Your task to perform on an android device: open device folders in google photos Image 0: 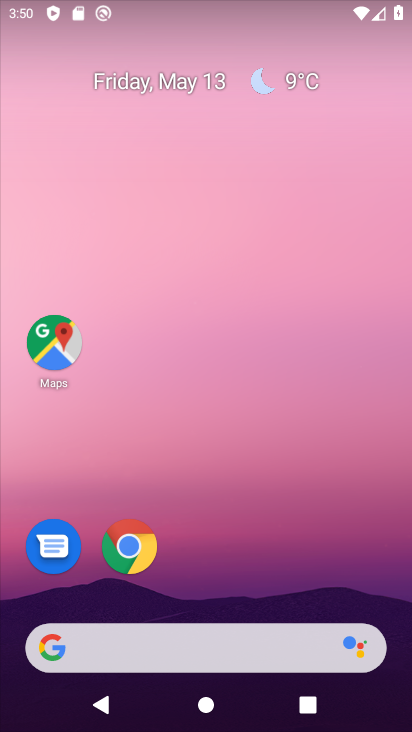
Step 0: drag from (204, 618) to (247, 5)
Your task to perform on an android device: open device folders in google photos Image 1: 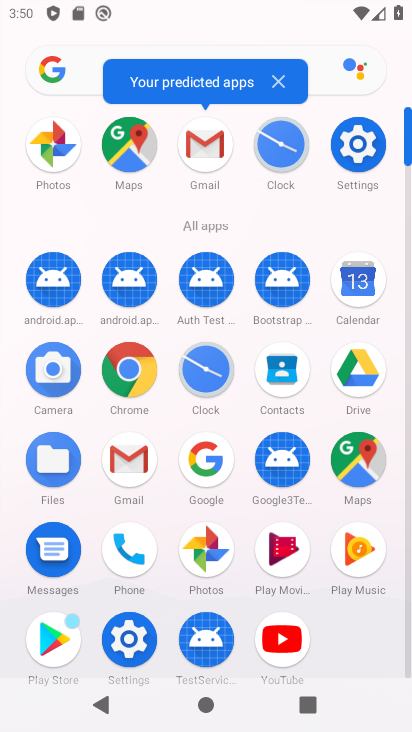
Step 1: click (208, 555)
Your task to perform on an android device: open device folders in google photos Image 2: 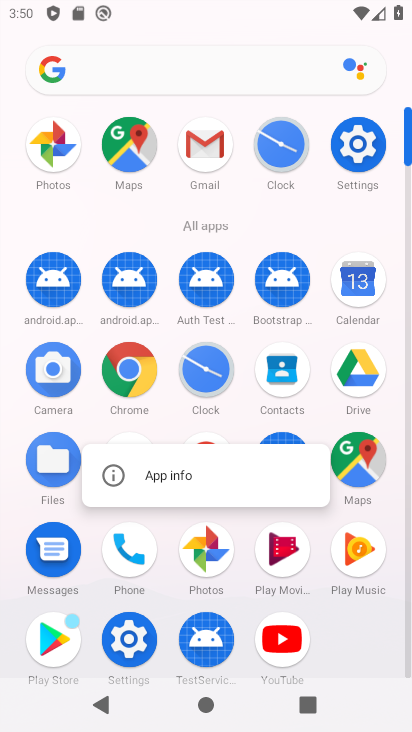
Step 2: click (208, 552)
Your task to perform on an android device: open device folders in google photos Image 3: 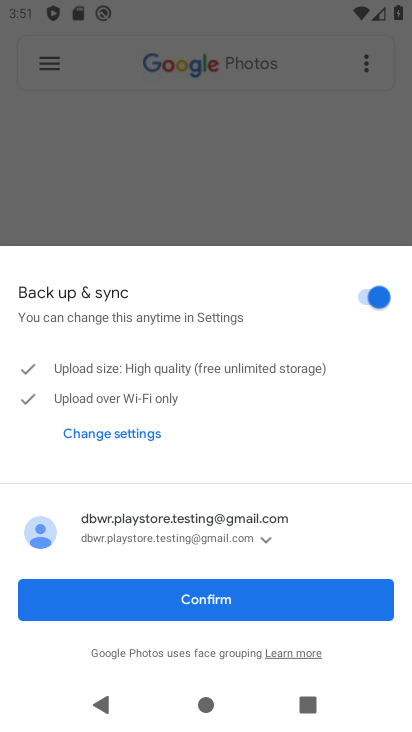
Step 3: click (231, 597)
Your task to perform on an android device: open device folders in google photos Image 4: 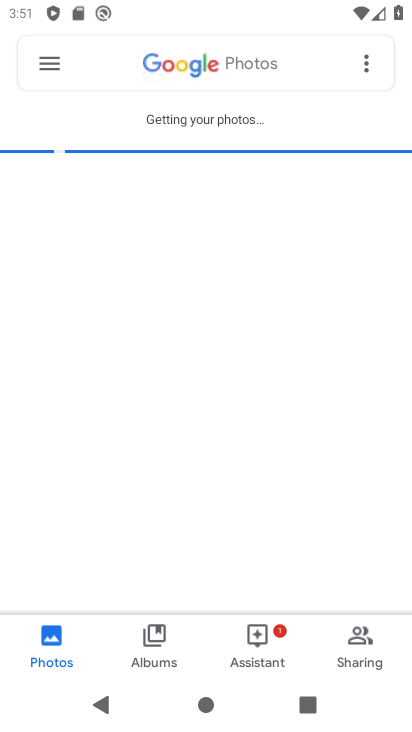
Step 4: click (56, 67)
Your task to perform on an android device: open device folders in google photos Image 5: 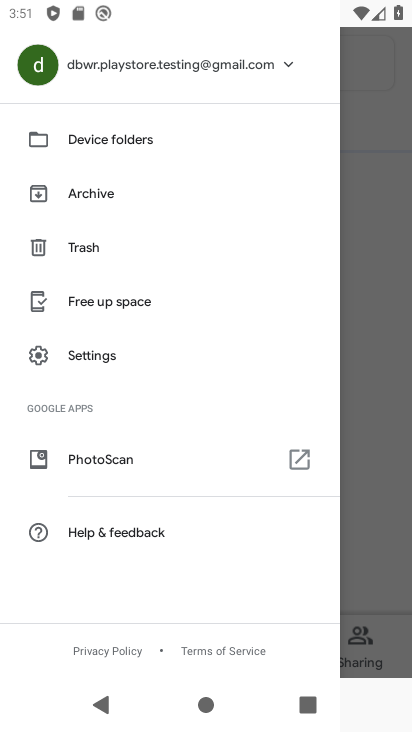
Step 5: click (93, 150)
Your task to perform on an android device: open device folders in google photos Image 6: 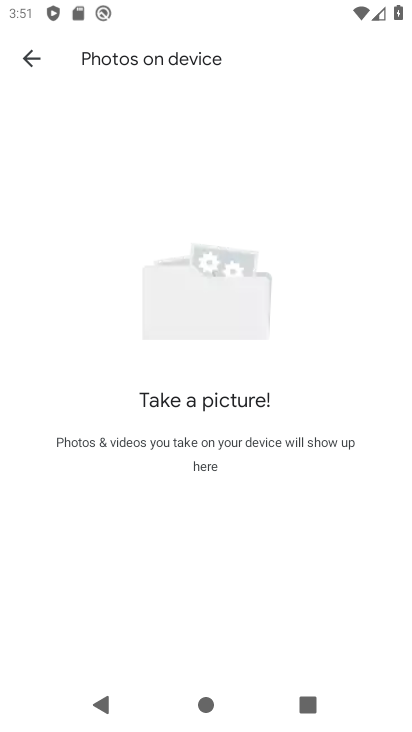
Step 6: task complete